Your task to perform on an android device: all mails in gmail Image 0: 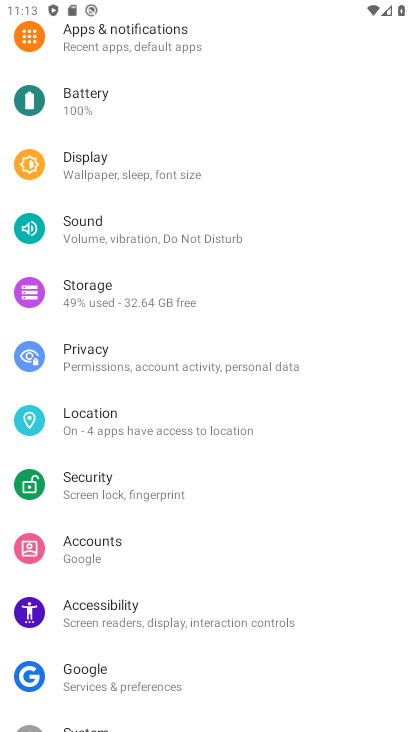
Step 0: press home button
Your task to perform on an android device: all mails in gmail Image 1: 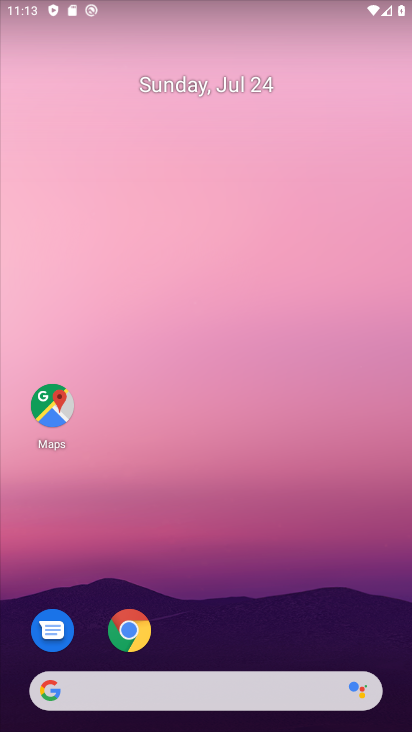
Step 1: drag from (242, 608) to (199, 77)
Your task to perform on an android device: all mails in gmail Image 2: 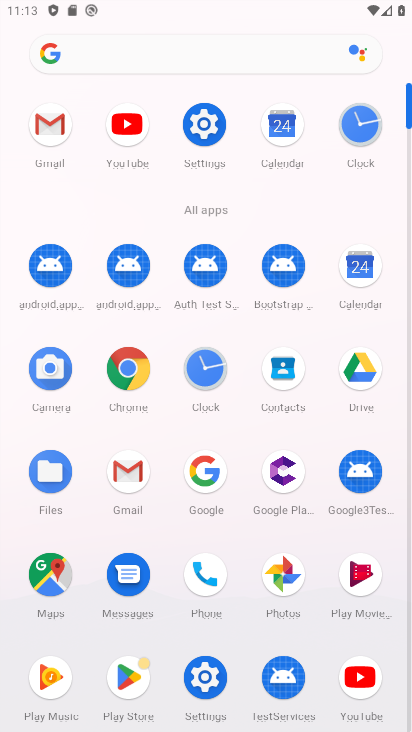
Step 2: click (47, 143)
Your task to perform on an android device: all mails in gmail Image 3: 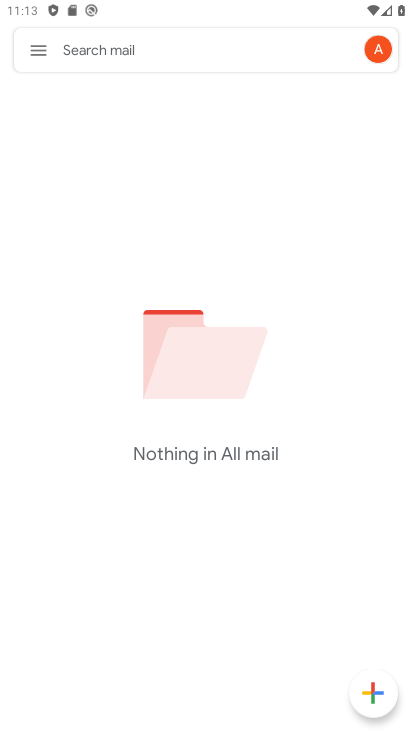
Step 3: click (29, 45)
Your task to perform on an android device: all mails in gmail Image 4: 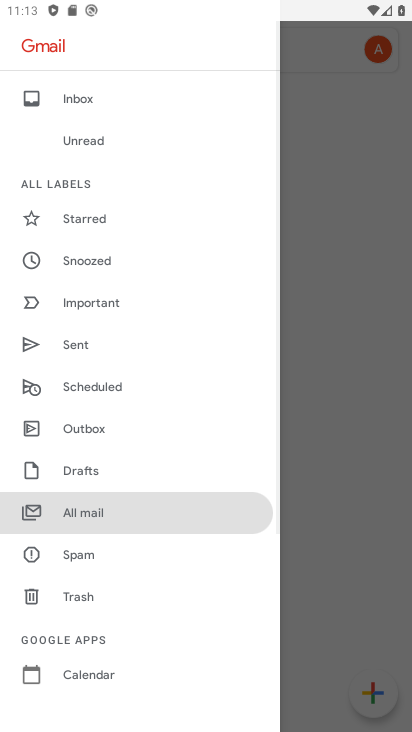
Step 4: click (78, 513)
Your task to perform on an android device: all mails in gmail Image 5: 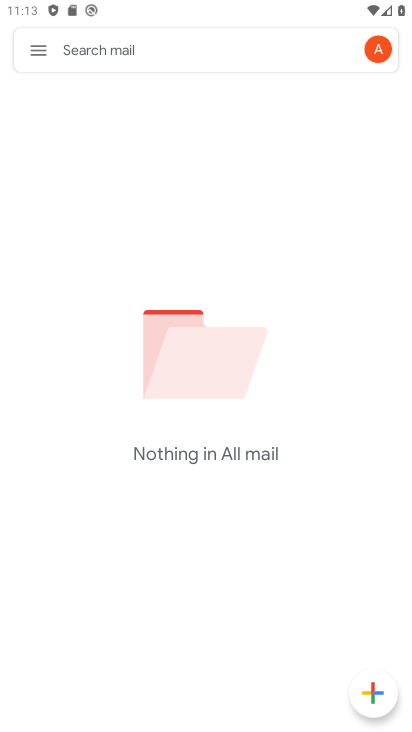
Step 5: task complete